Your task to perform on an android device: empty trash in the gmail app Image 0: 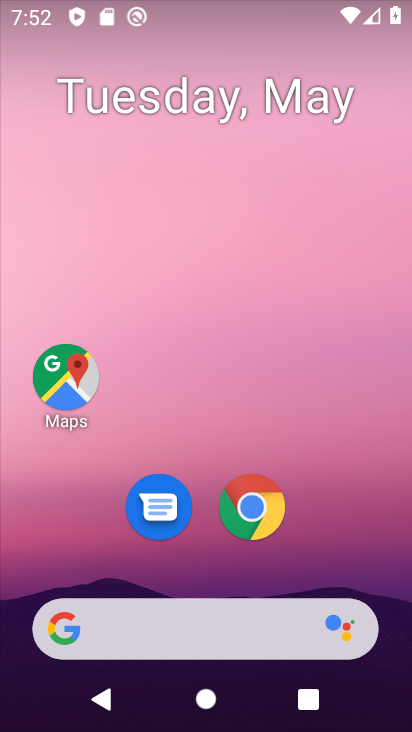
Step 0: drag from (326, 444) to (262, 24)
Your task to perform on an android device: empty trash in the gmail app Image 1: 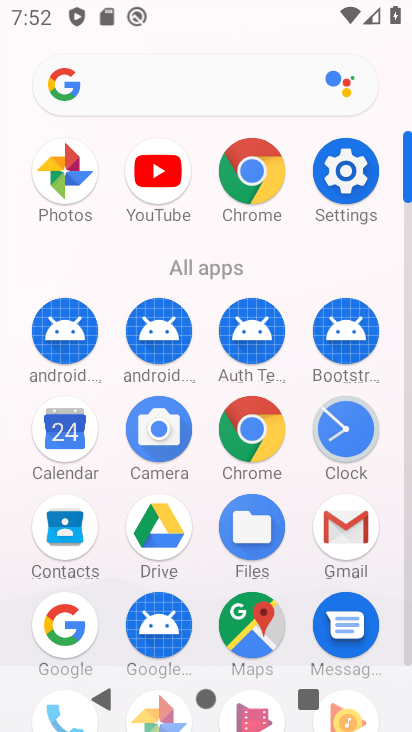
Step 1: drag from (14, 260) to (14, 226)
Your task to perform on an android device: empty trash in the gmail app Image 2: 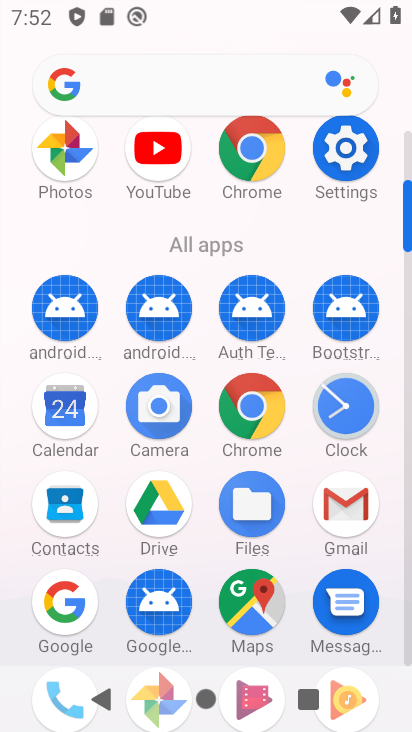
Step 2: click (344, 501)
Your task to perform on an android device: empty trash in the gmail app Image 3: 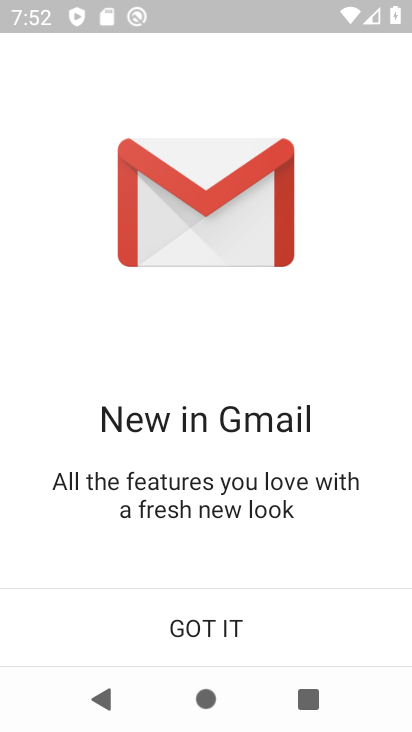
Step 3: click (201, 637)
Your task to perform on an android device: empty trash in the gmail app Image 4: 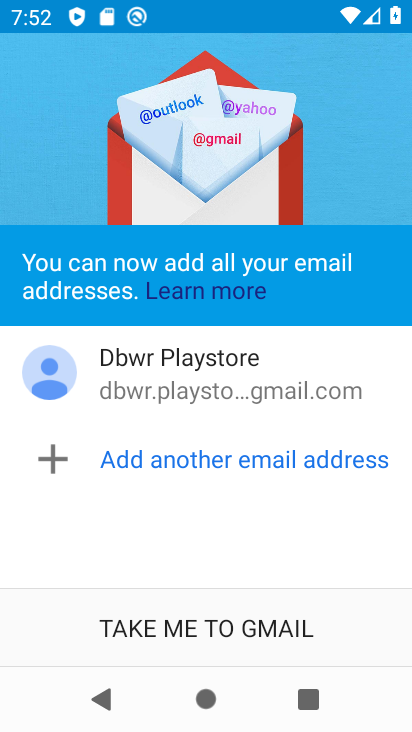
Step 4: click (201, 631)
Your task to perform on an android device: empty trash in the gmail app Image 5: 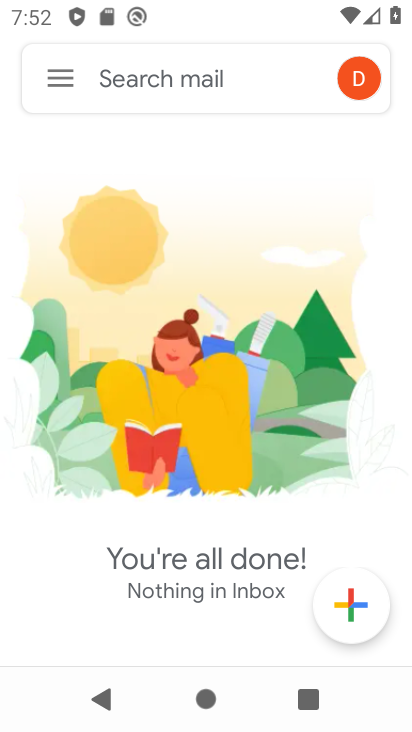
Step 5: click (58, 74)
Your task to perform on an android device: empty trash in the gmail app Image 6: 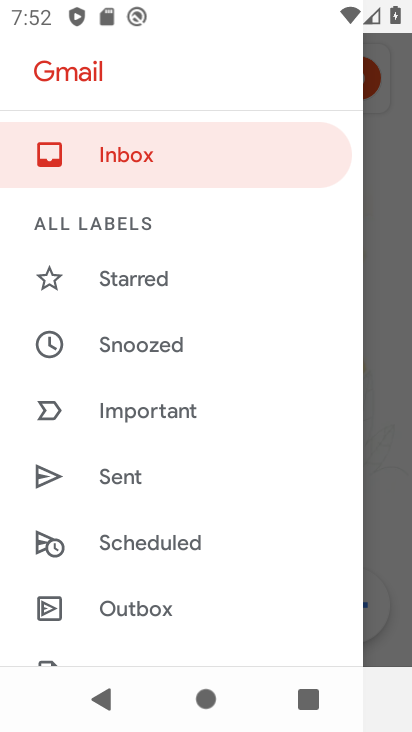
Step 6: drag from (215, 537) to (209, 172)
Your task to perform on an android device: empty trash in the gmail app Image 7: 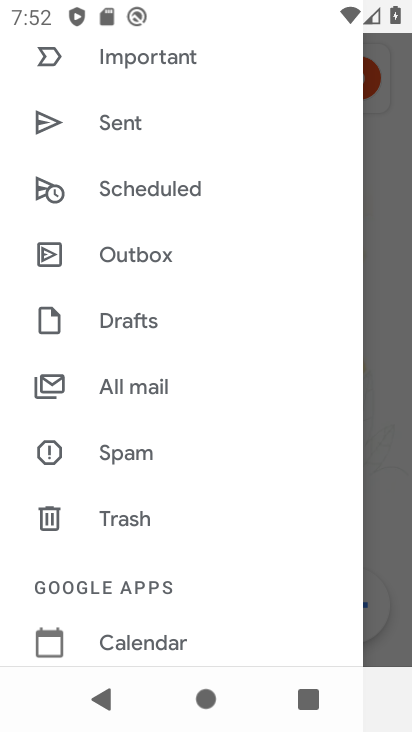
Step 7: click (126, 514)
Your task to perform on an android device: empty trash in the gmail app Image 8: 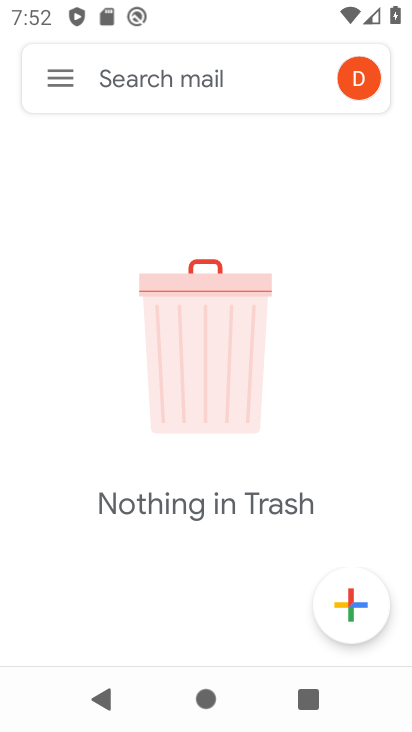
Step 8: task complete